Your task to perform on an android device: turn off wifi Image 0: 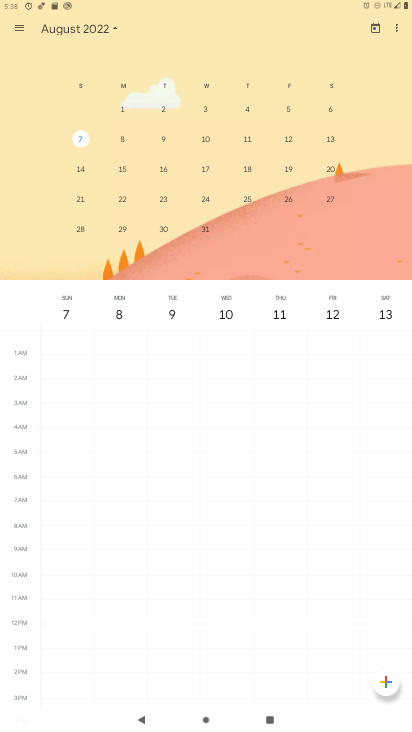
Step 0: press home button
Your task to perform on an android device: turn off wifi Image 1: 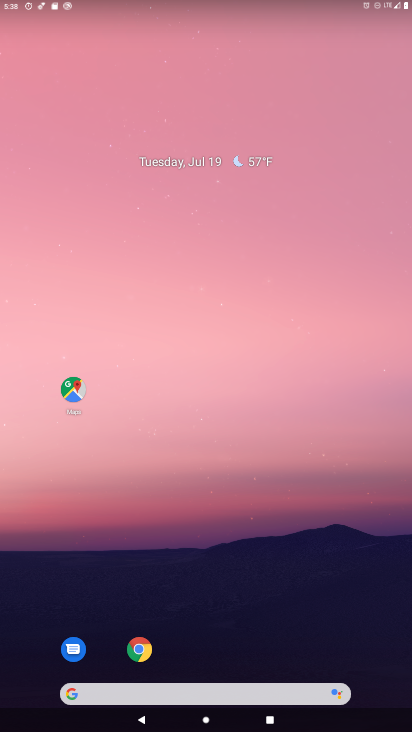
Step 1: drag from (191, 586) to (209, 4)
Your task to perform on an android device: turn off wifi Image 2: 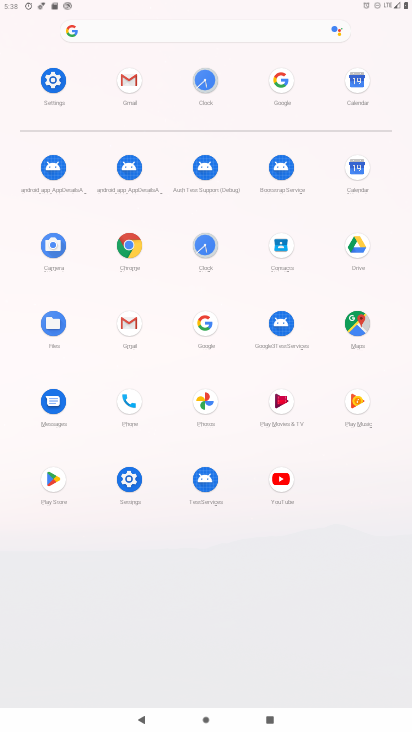
Step 2: click (130, 478)
Your task to perform on an android device: turn off wifi Image 3: 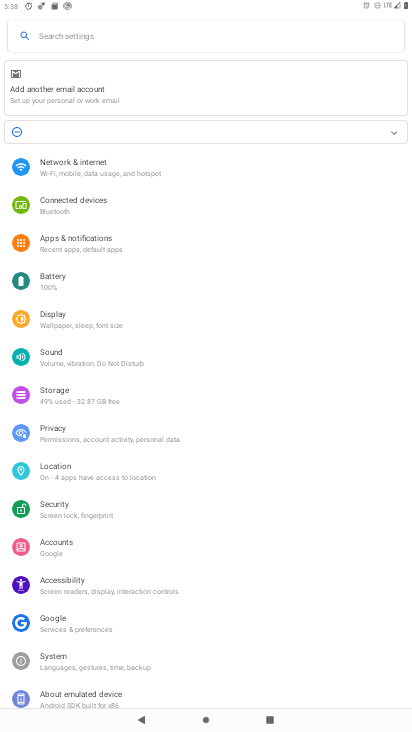
Step 3: click (77, 182)
Your task to perform on an android device: turn off wifi Image 4: 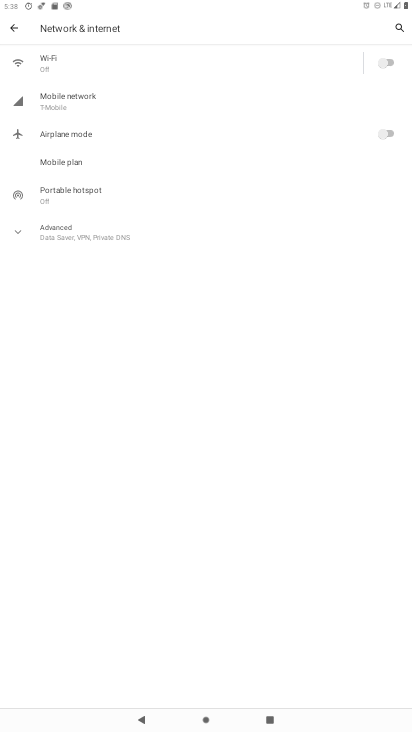
Step 4: click (232, 88)
Your task to perform on an android device: turn off wifi Image 5: 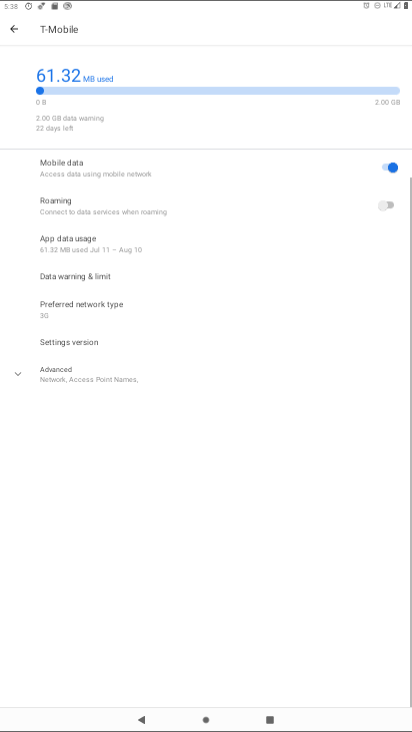
Step 5: task complete